Your task to perform on an android device: Do I have any events today? Image 0: 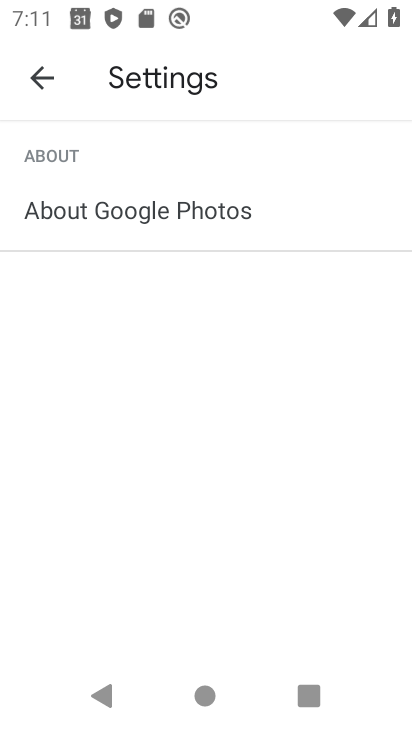
Step 0: press home button
Your task to perform on an android device: Do I have any events today? Image 1: 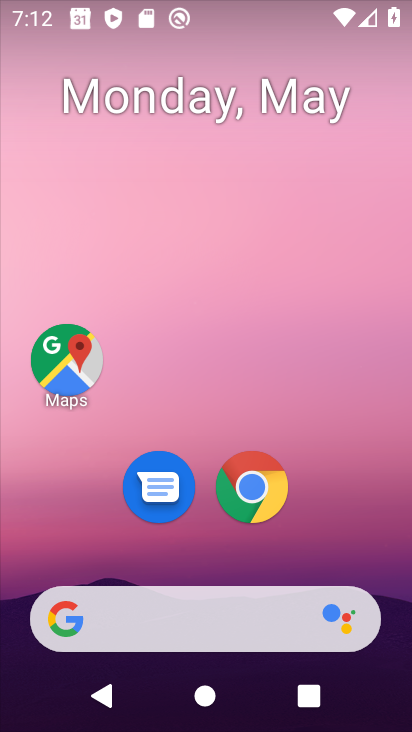
Step 1: drag from (278, 655) to (193, 123)
Your task to perform on an android device: Do I have any events today? Image 2: 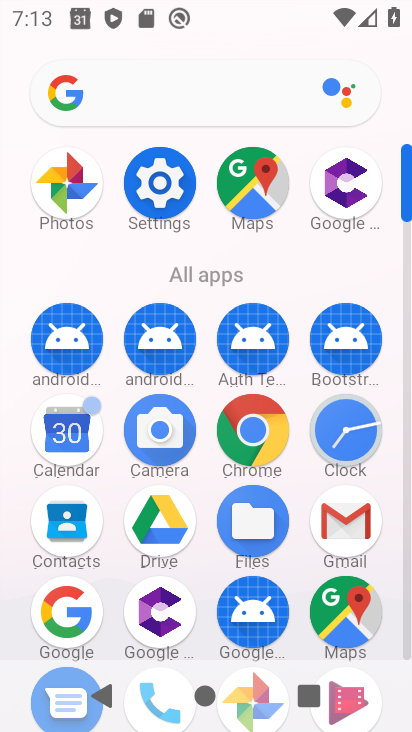
Step 2: click (74, 415)
Your task to perform on an android device: Do I have any events today? Image 3: 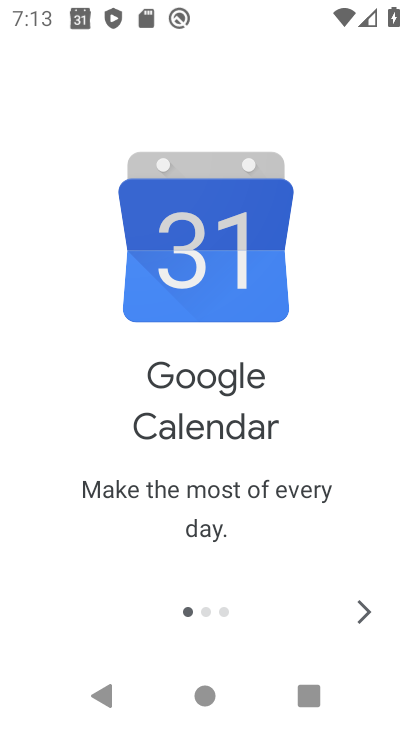
Step 3: click (348, 610)
Your task to perform on an android device: Do I have any events today? Image 4: 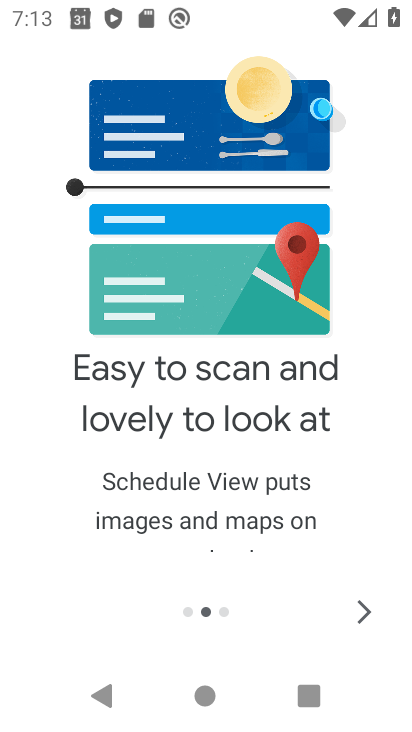
Step 4: click (365, 606)
Your task to perform on an android device: Do I have any events today? Image 5: 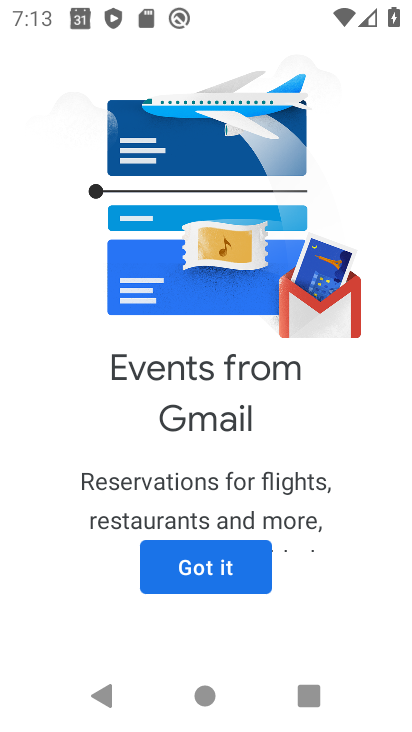
Step 5: click (222, 571)
Your task to perform on an android device: Do I have any events today? Image 6: 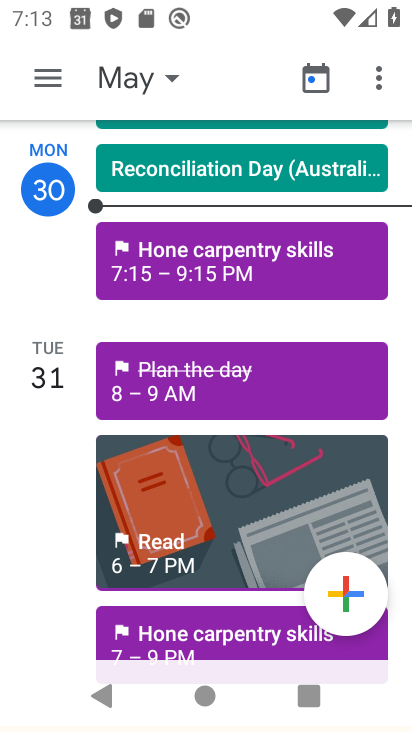
Step 6: task complete